Your task to perform on an android device: Go to Maps Image 0: 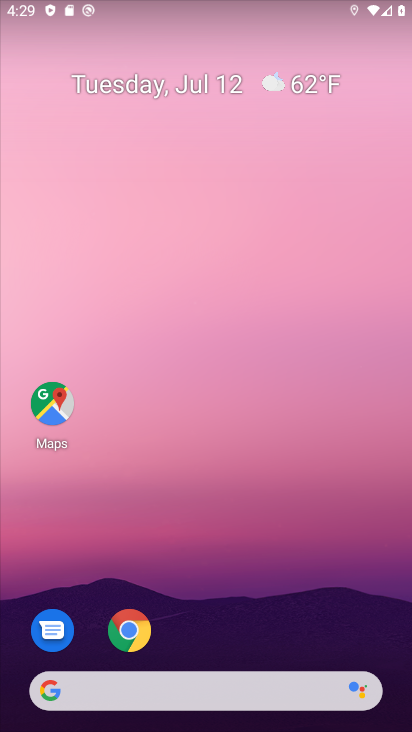
Step 0: drag from (188, 635) to (286, 144)
Your task to perform on an android device: Go to Maps Image 1: 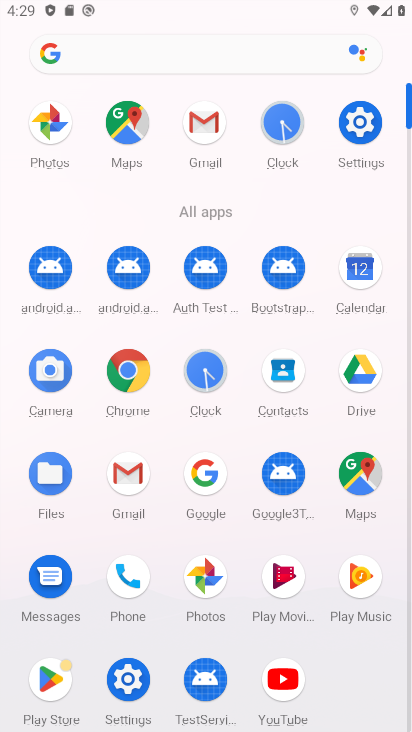
Step 1: click (341, 484)
Your task to perform on an android device: Go to Maps Image 2: 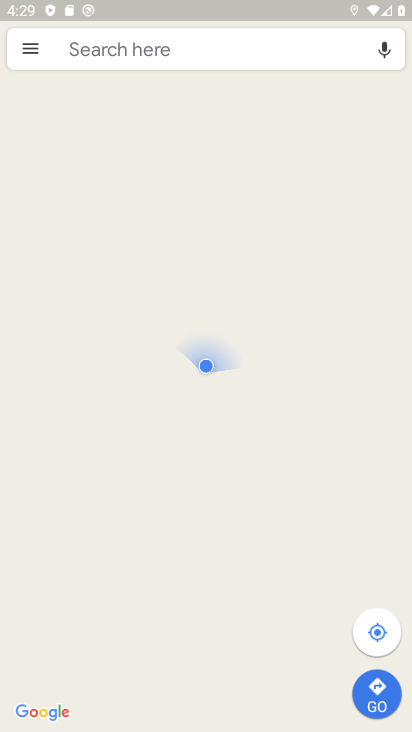
Step 2: task complete